Your task to perform on an android device: Go to wifi settings Image 0: 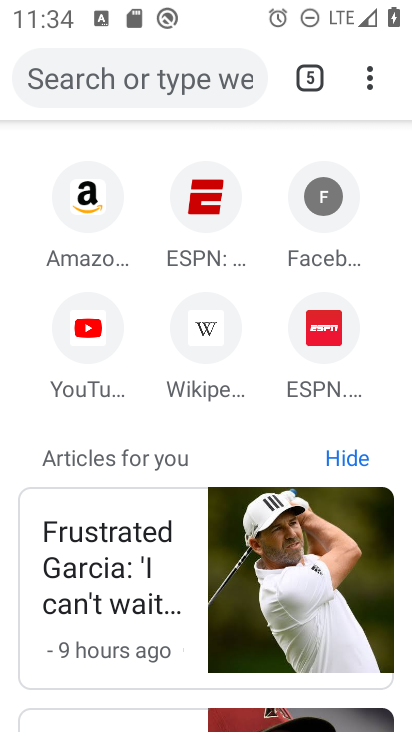
Step 0: press home button
Your task to perform on an android device: Go to wifi settings Image 1: 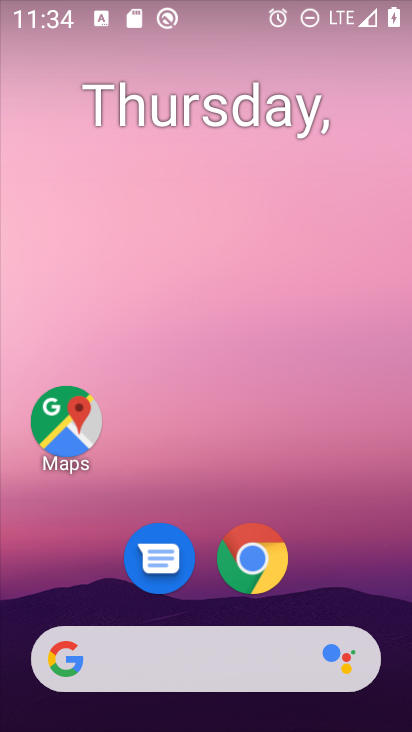
Step 1: drag from (384, 609) to (327, 128)
Your task to perform on an android device: Go to wifi settings Image 2: 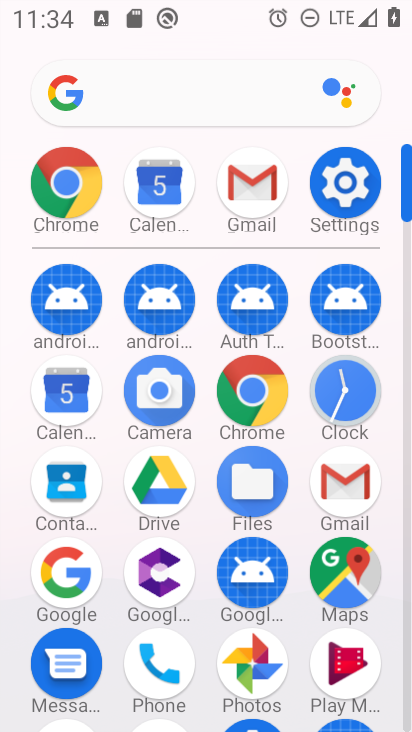
Step 2: click (408, 706)
Your task to perform on an android device: Go to wifi settings Image 3: 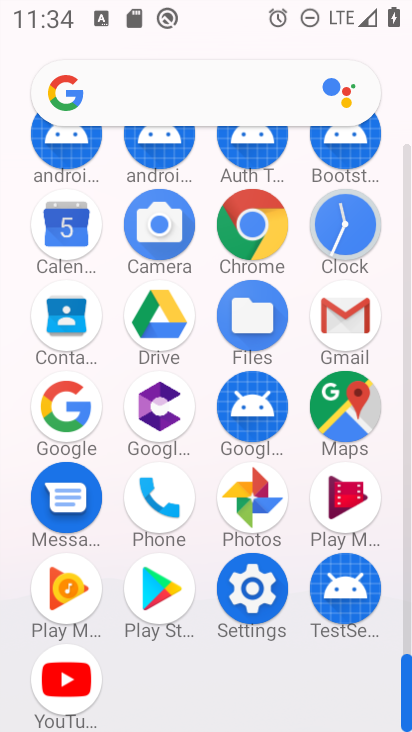
Step 3: click (251, 585)
Your task to perform on an android device: Go to wifi settings Image 4: 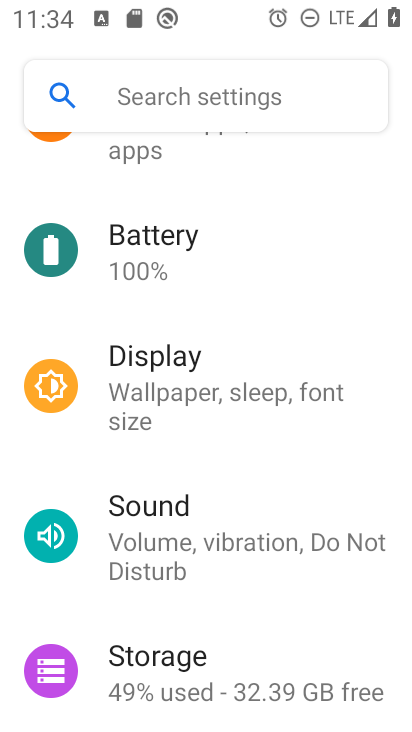
Step 4: drag from (342, 259) to (345, 570)
Your task to perform on an android device: Go to wifi settings Image 5: 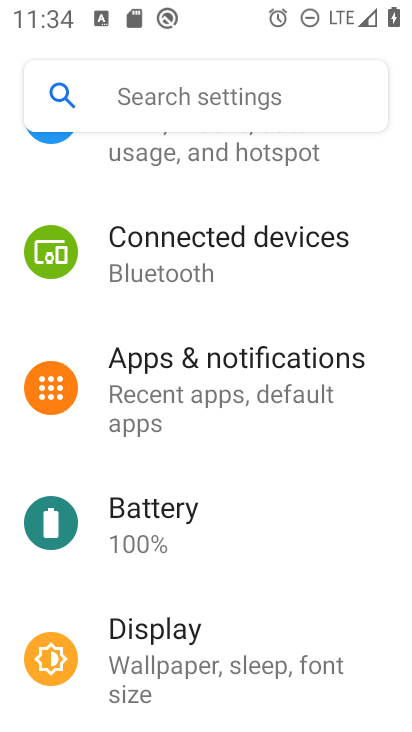
Step 5: drag from (389, 213) to (362, 490)
Your task to perform on an android device: Go to wifi settings Image 6: 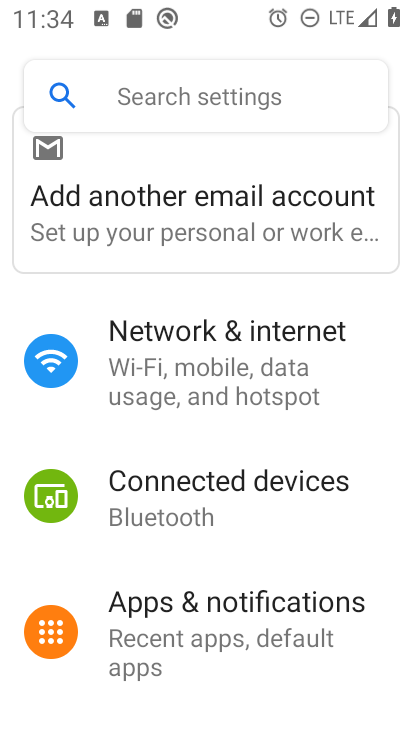
Step 6: click (163, 353)
Your task to perform on an android device: Go to wifi settings Image 7: 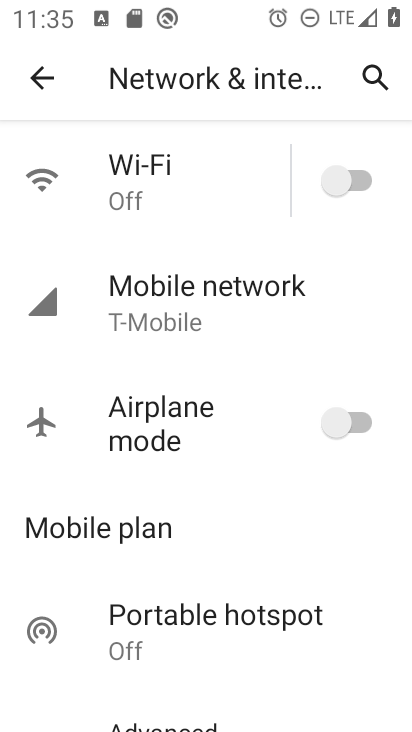
Step 7: click (116, 173)
Your task to perform on an android device: Go to wifi settings Image 8: 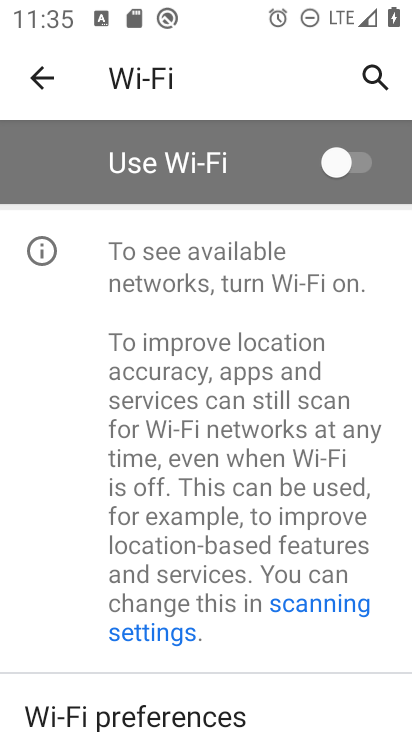
Step 8: task complete